Your task to perform on an android device: empty trash in the gmail app Image 0: 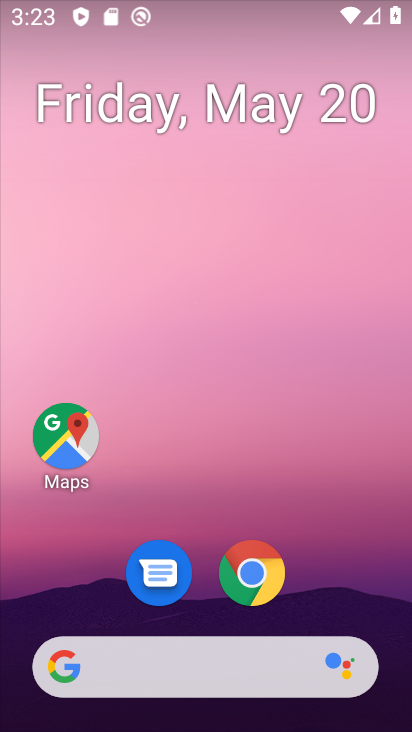
Step 0: drag from (380, 606) to (360, 293)
Your task to perform on an android device: empty trash in the gmail app Image 1: 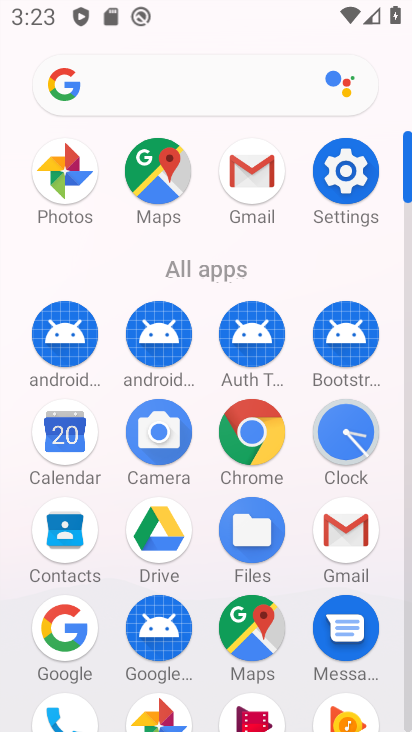
Step 1: click (410, 703)
Your task to perform on an android device: empty trash in the gmail app Image 2: 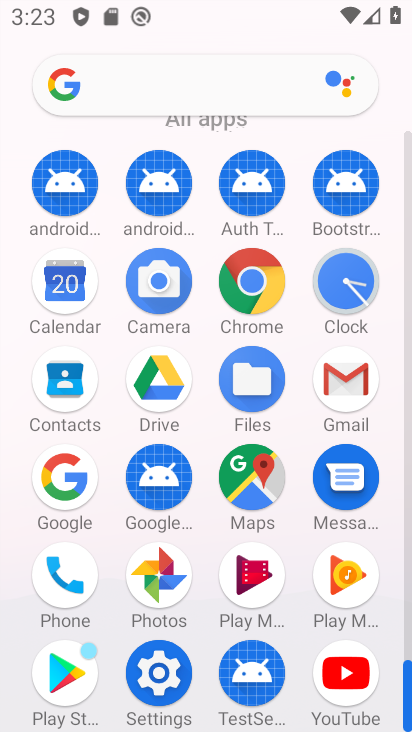
Step 2: click (348, 383)
Your task to perform on an android device: empty trash in the gmail app Image 3: 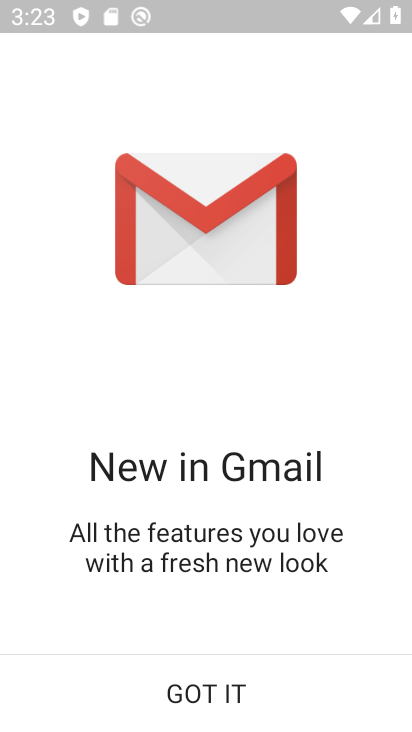
Step 3: click (207, 697)
Your task to perform on an android device: empty trash in the gmail app Image 4: 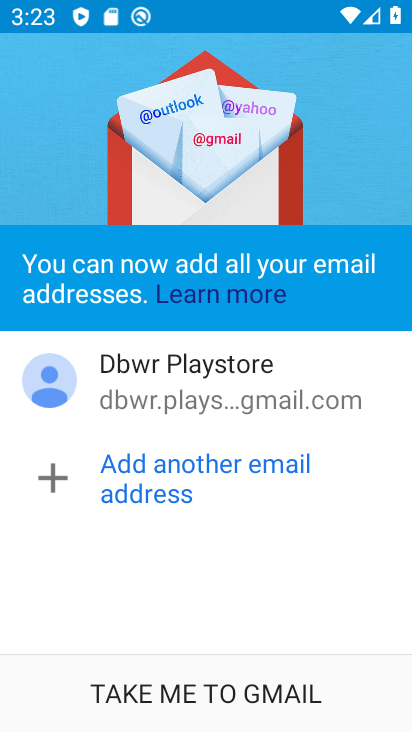
Step 4: click (207, 697)
Your task to perform on an android device: empty trash in the gmail app Image 5: 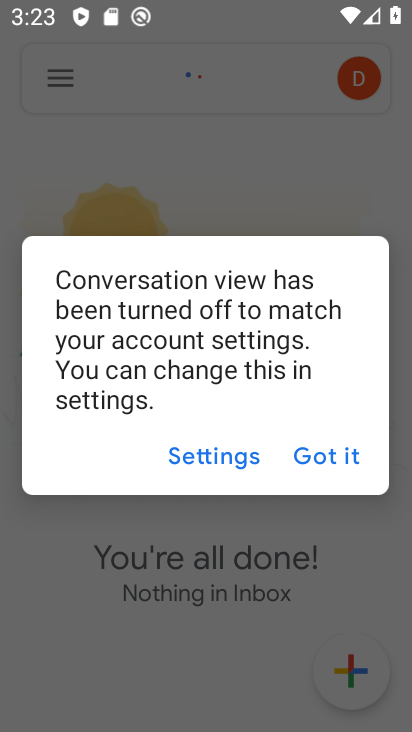
Step 5: click (321, 450)
Your task to perform on an android device: empty trash in the gmail app Image 6: 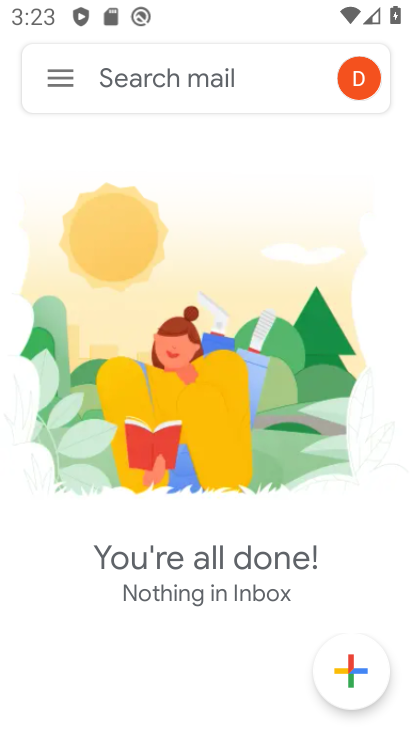
Step 6: click (58, 81)
Your task to perform on an android device: empty trash in the gmail app Image 7: 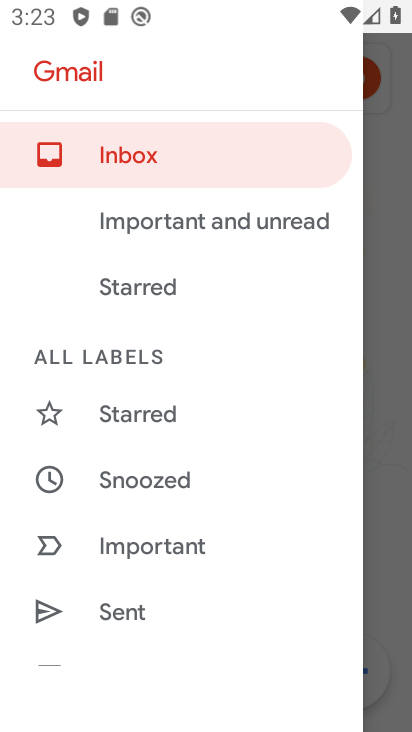
Step 7: drag from (217, 617) to (214, 210)
Your task to perform on an android device: empty trash in the gmail app Image 8: 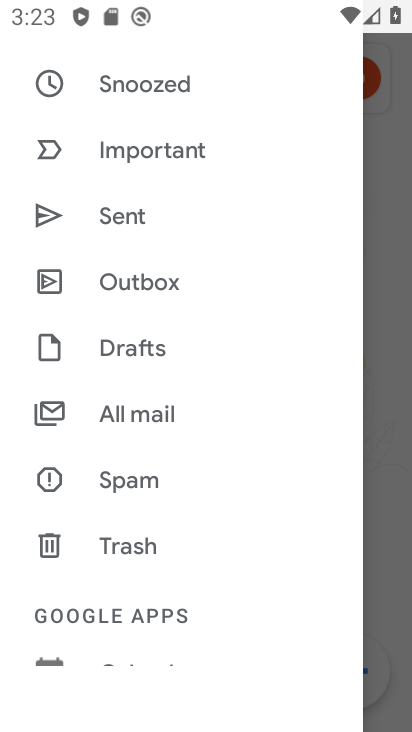
Step 8: click (102, 549)
Your task to perform on an android device: empty trash in the gmail app Image 9: 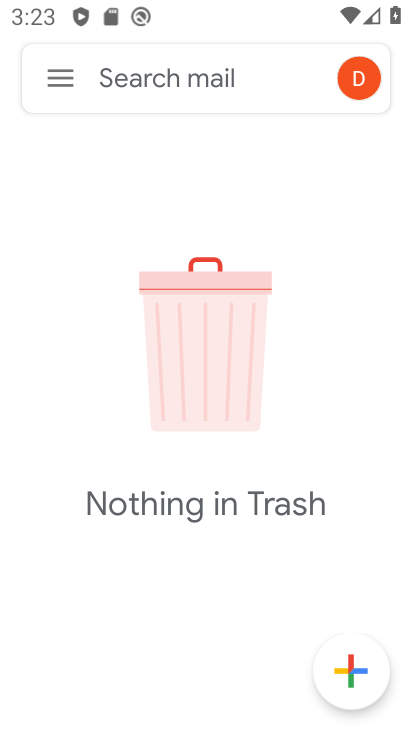
Step 9: task complete